Your task to perform on an android device: Open Reddit.com Image 0: 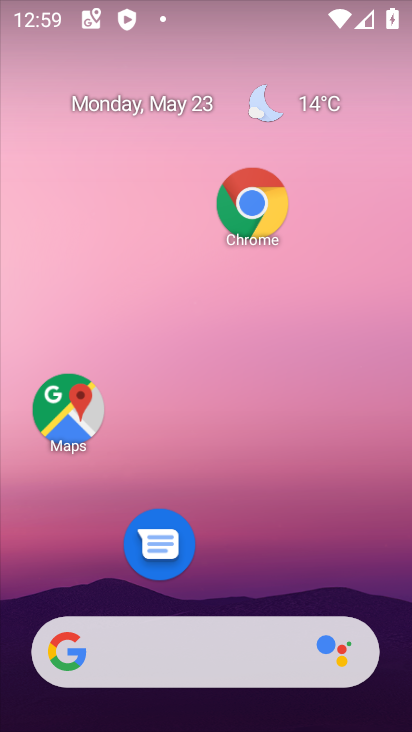
Step 0: click (270, 199)
Your task to perform on an android device: Open Reddit.com Image 1: 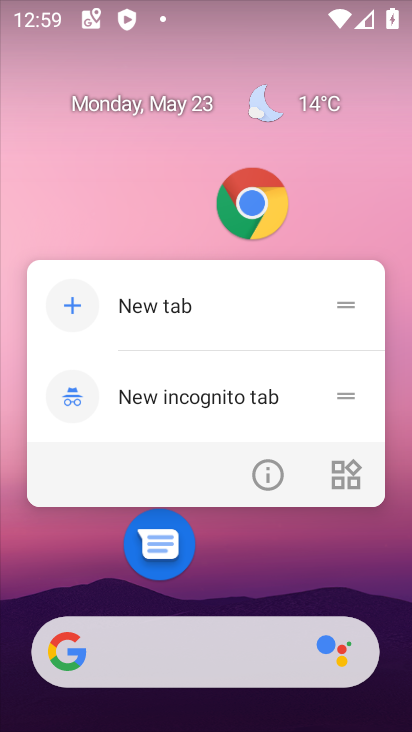
Step 1: click (244, 191)
Your task to perform on an android device: Open Reddit.com Image 2: 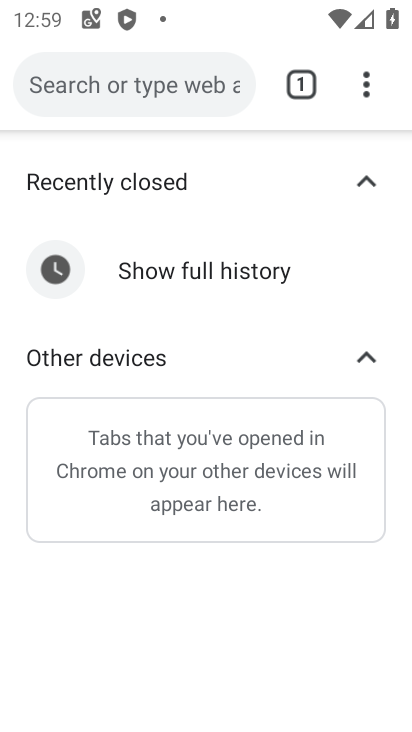
Step 2: click (171, 81)
Your task to perform on an android device: Open Reddit.com Image 3: 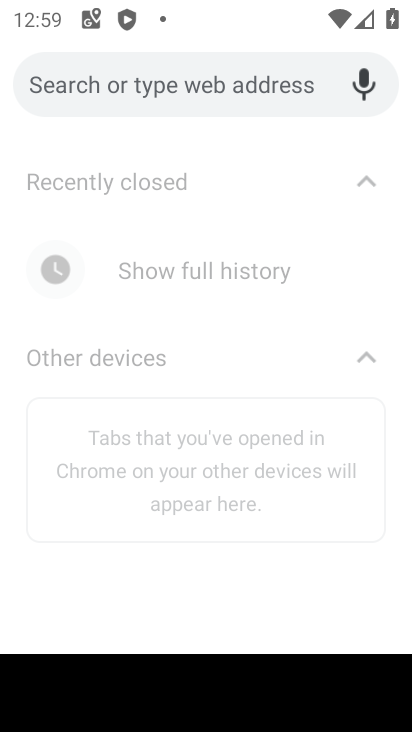
Step 3: type "reddit.com"
Your task to perform on an android device: Open Reddit.com Image 4: 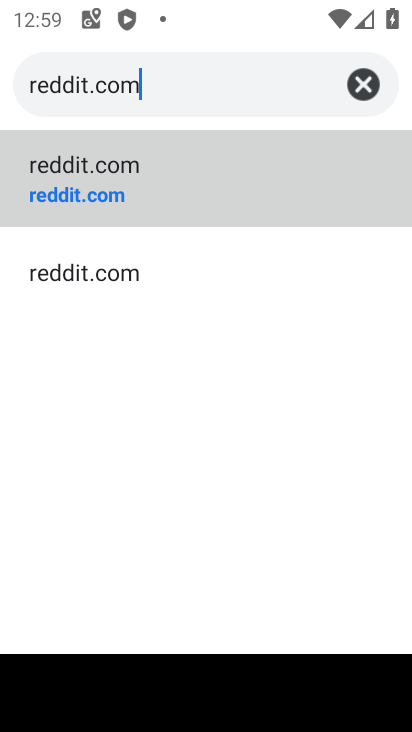
Step 4: type ""
Your task to perform on an android device: Open Reddit.com Image 5: 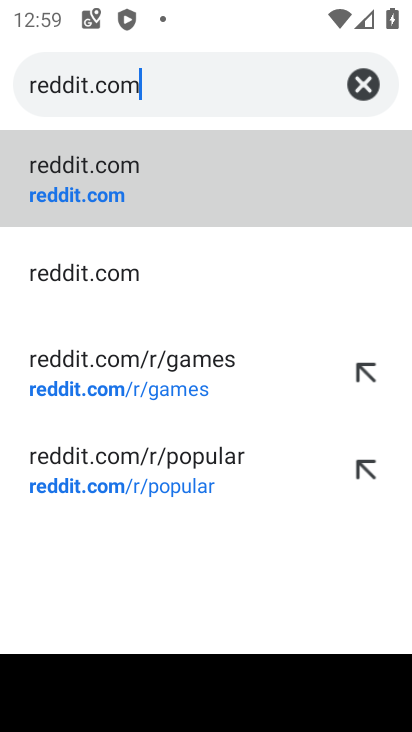
Step 5: click (64, 197)
Your task to perform on an android device: Open Reddit.com Image 6: 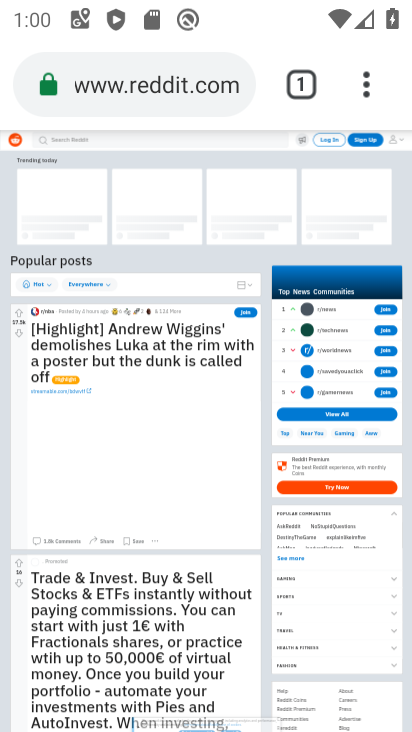
Step 6: task complete